Your task to perform on an android device: What is the news today? Image 0: 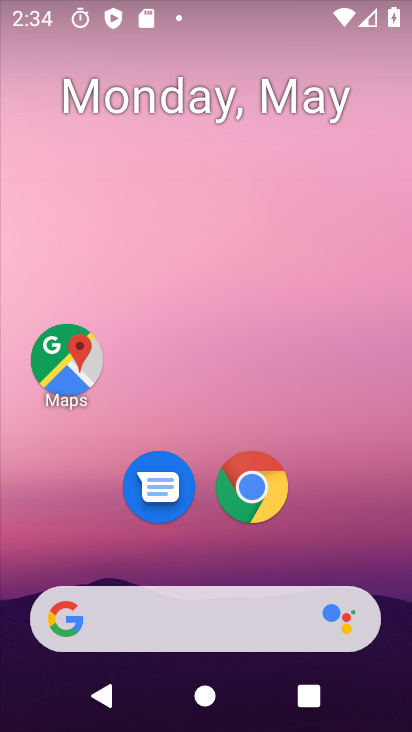
Step 0: click (205, 631)
Your task to perform on an android device: What is the news today? Image 1: 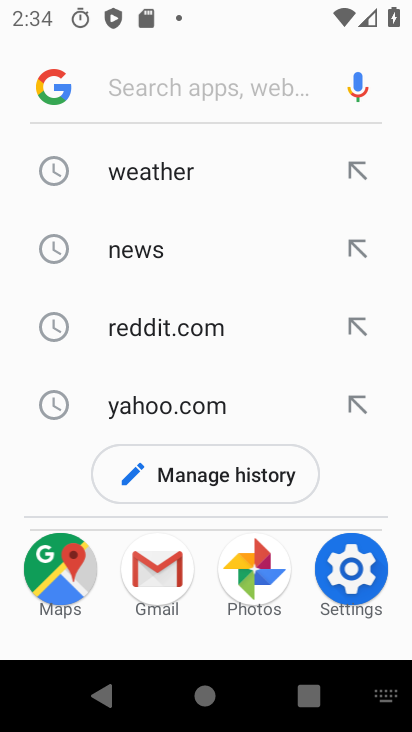
Step 1: type "news today?"
Your task to perform on an android device: What is the news today? Image 2: 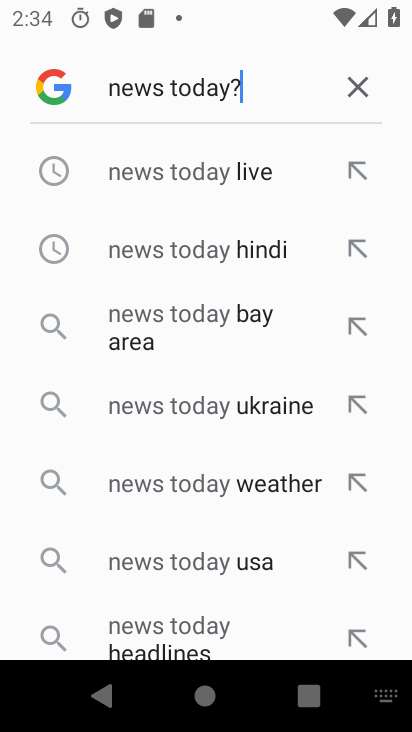
Step 2: click (247, 179)
Your task to perform on an android device: What is the news today? Image 3: 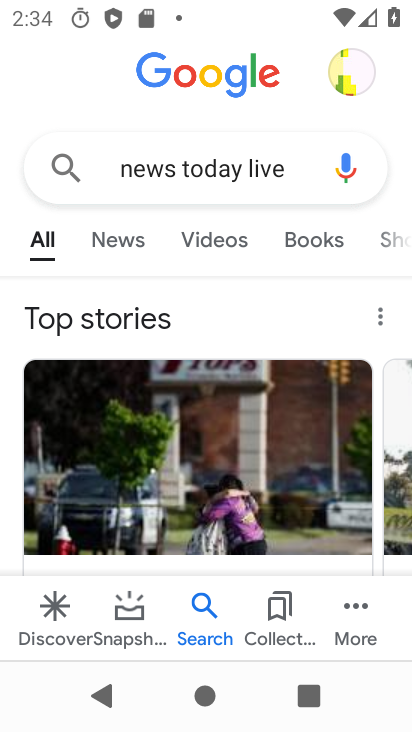
Step 3: task complete